Your task to perform on an android device: check battery use Image 0: 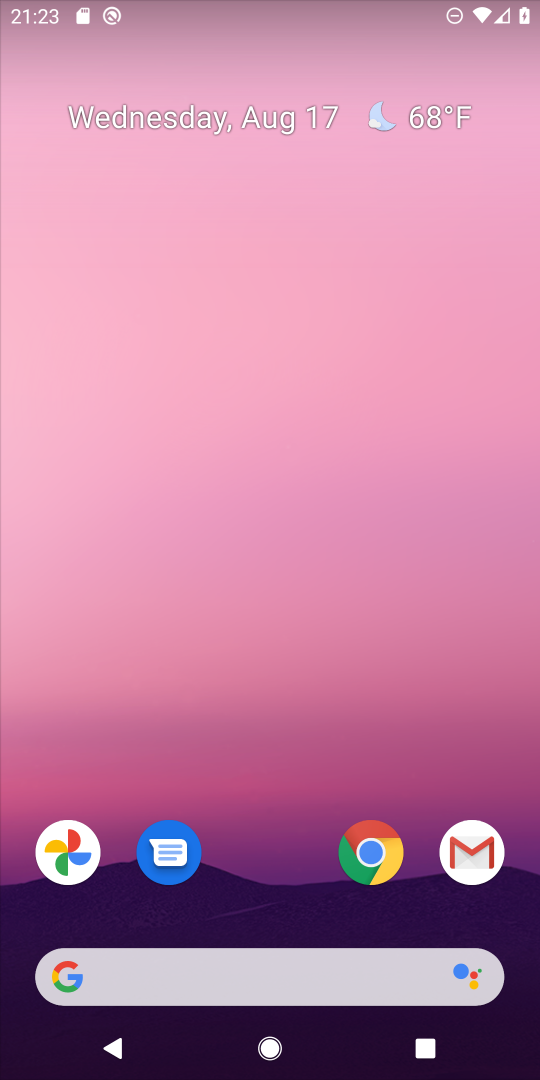
Step 0: drag from (270, 893) to (366, 129)
Your task to perform on an android device: check battery use Image 1: 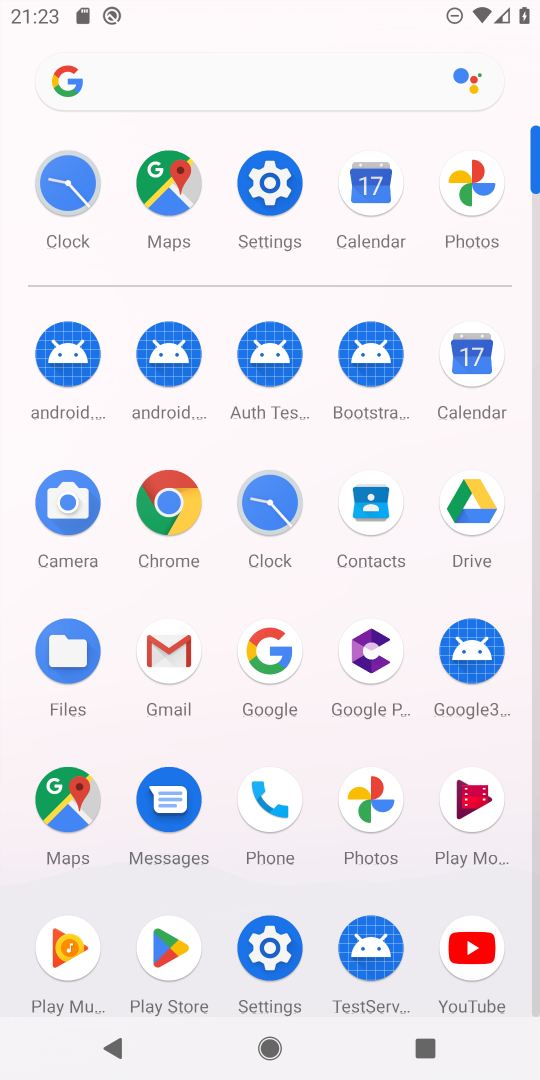
Step 1: click (266, 179)
Your task to perform on an android device: check battery use Image 2: 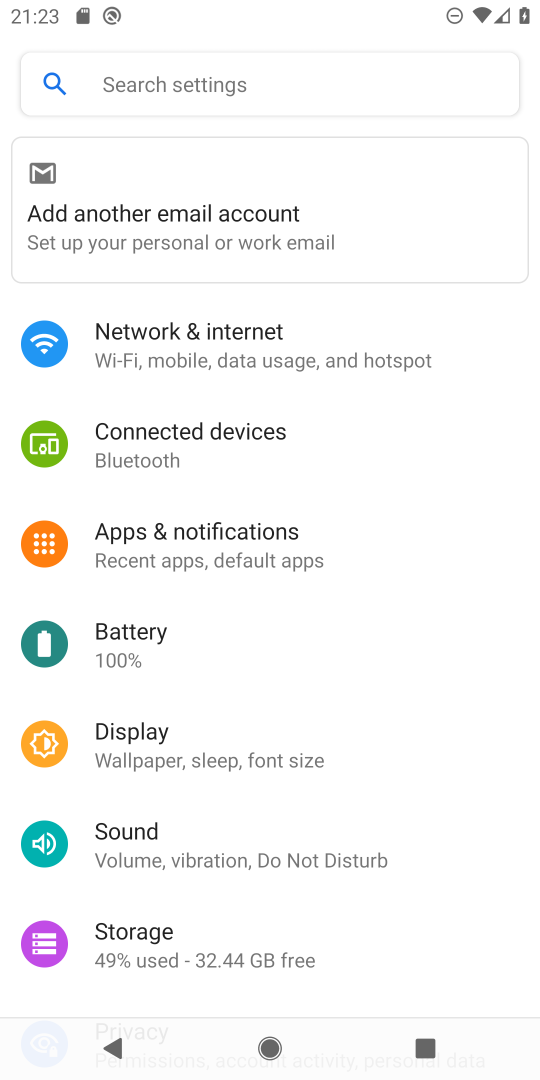
Step 2: click (139, 629)
Your task to perform on an android device: check battery use Image 3: 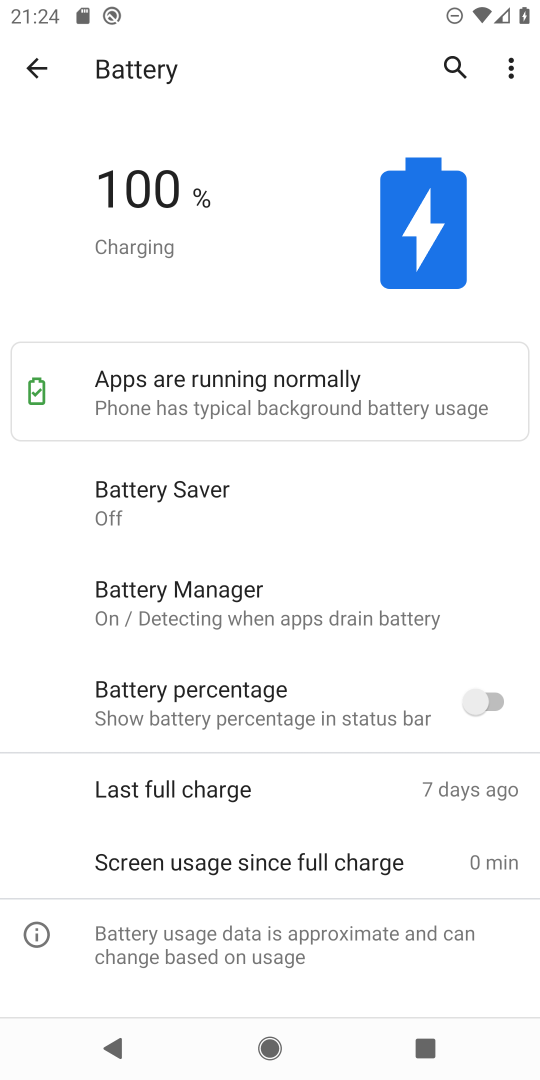
Step 3: task complete